Your task to perform on an android device: toggle priority inbox in the gmail app Image 0: 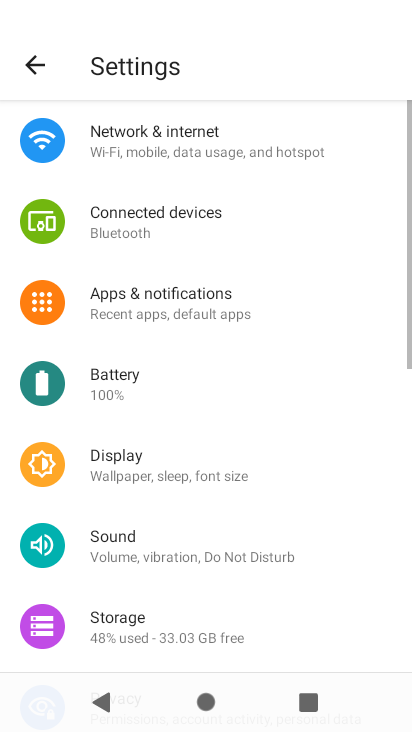
Step 0: press home button
Your task to perform on an android device: toggle priority inbox in the gmail app Image 1: 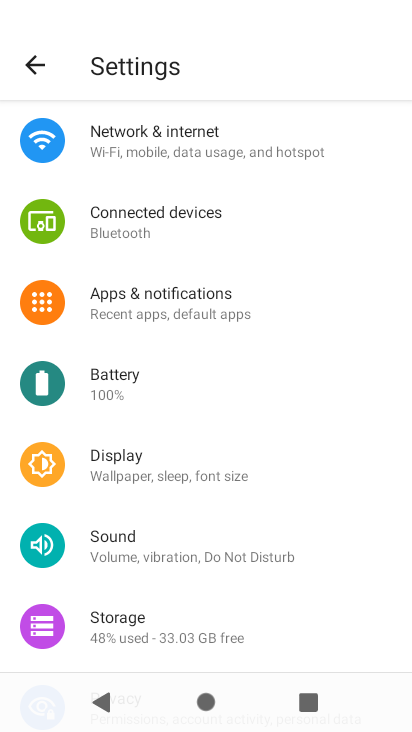
Step 1: press home button
Your task to perform on an android device: toggle priority inbox in the gmail app Image 2: 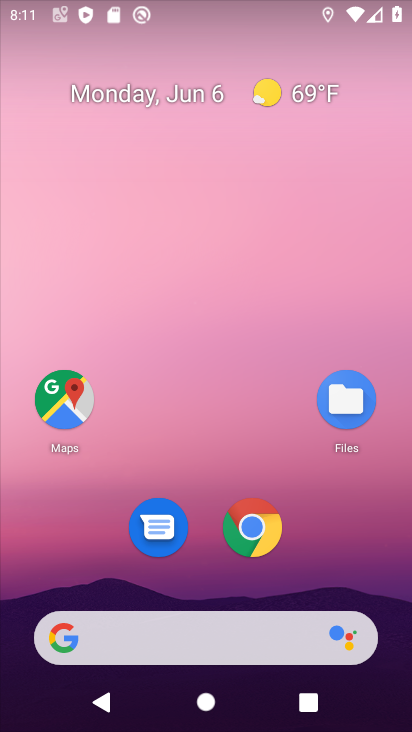
Step 2: drag from (197, 572) to (233, 76)
Your task to perform on an android device: toggle priority inbox in the gmail app Image 3: 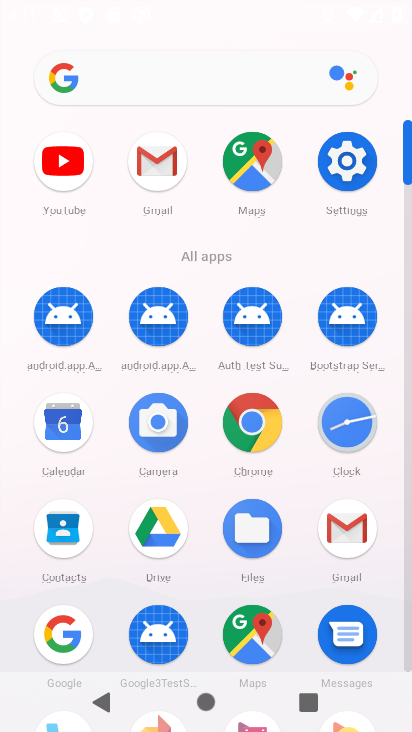
Step 3: click (346, 524)
Your task to perform on an android device: toggle priority inbox in the gmail app Image 4: 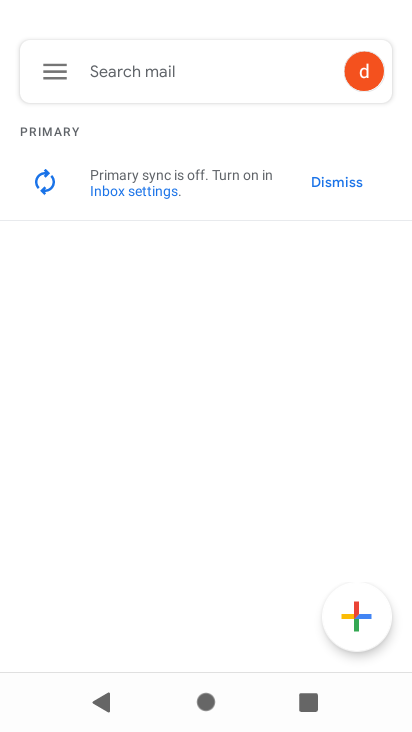
Step 4: click (55, 65)
Your task to perform on an android device: toggle priority inbox in the gmail app Image 5: 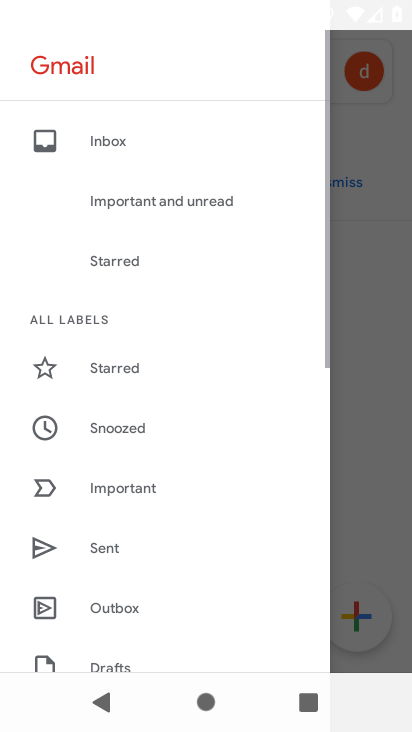
Step 5: drag from (176, 564) to (196, 95)
Your task to perform on an android device: toggle priority inbox in the gmail app Image 6: 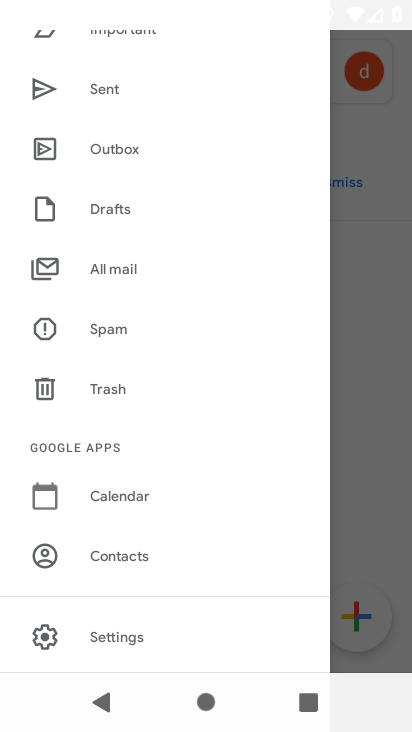
Step 6: click (147, 649)
Your task to perform on an android device: toggle priority inbox in the gmail app Image 7: 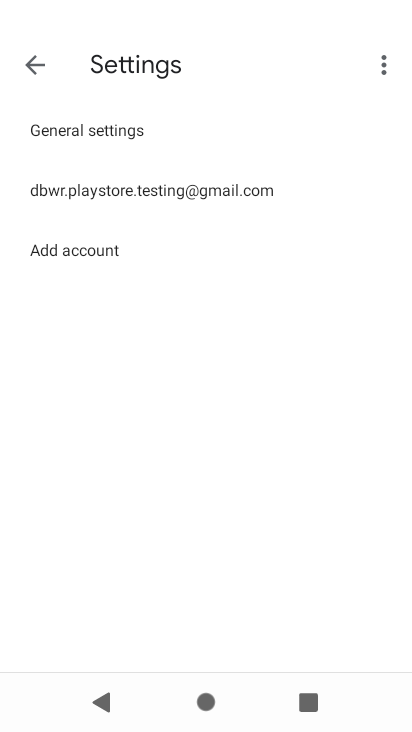
Step 7: click (96, 208)
Your task to perform on an android device: toggle priority inbox in the gmail app Image 8: 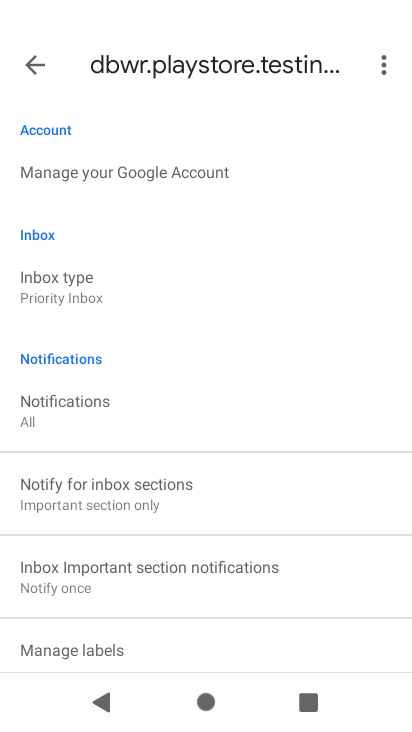
Step 8: click (83, 284)
Your task to perform on an android device: toggle priority inbox in the gmail app Image 9: 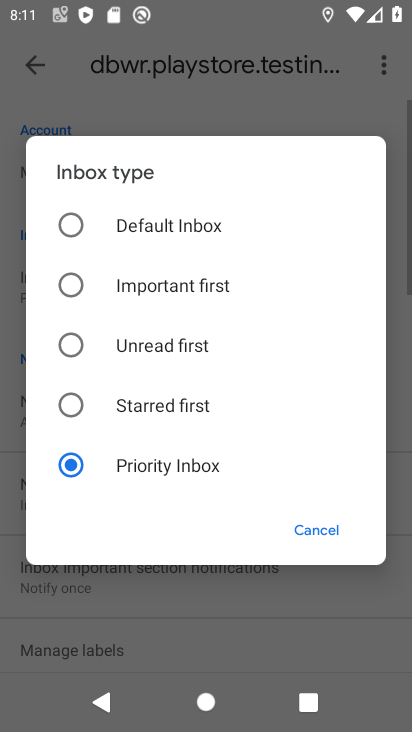
Step 9: click (77, 231)
Your task to perform on an android device: toggle priority inbox in the gmail app Image 10: 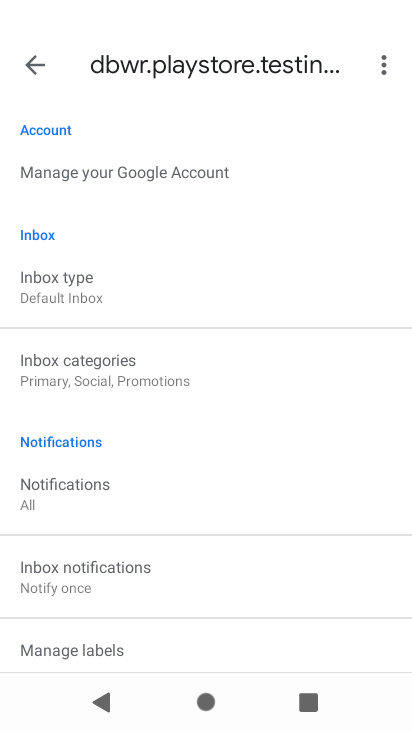
Step 10: task complete